Your task to perform on an android device: Go to Android settings Image 0: 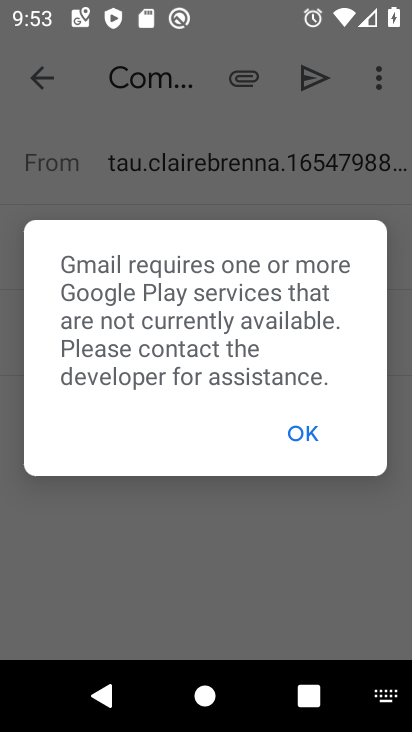
Step 0: press home button
Your task to perform on an android device: Go to Android settings Image 1: 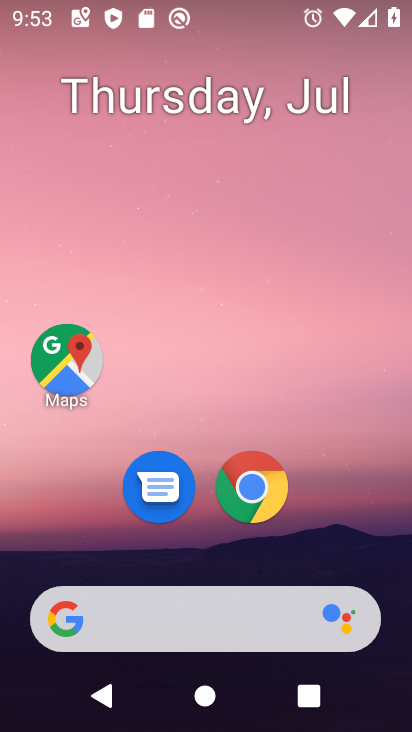
Step 1: drag from (254, 644) to (299, 250)
Your task to perform on an android device: Go to Android settings Image 2: 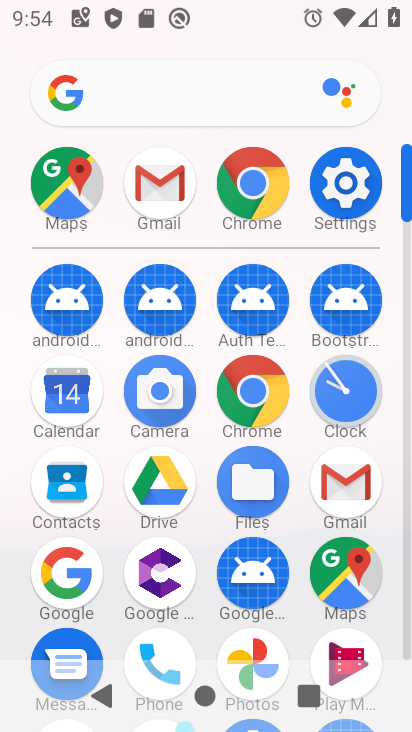
Step 2: click (330, 204)
Your task to perform on an android device: Go to Android settings Image 3: 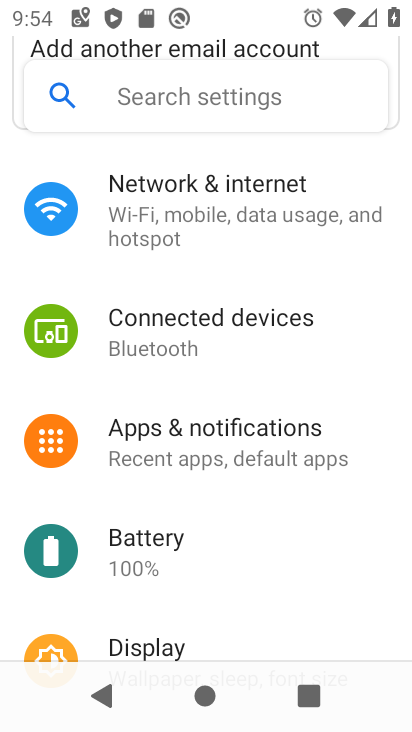
Step 3: drag from (197, 538) to (255, 94)
Your task to perform on an android device: Go to Android settings Image 4: 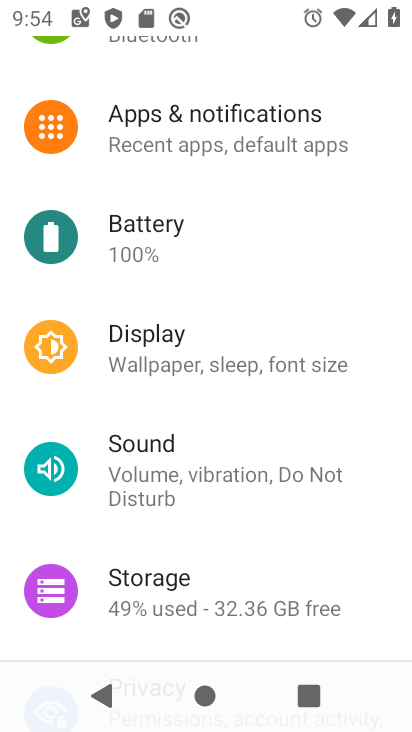
Step 4: drag from (115, 505) to (186, 121)
Your task to perform on an android device: Go to Android settings Image 5: 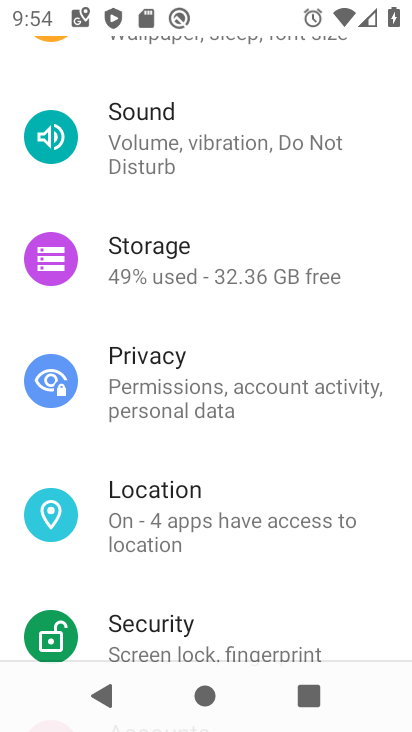
Step 5: drag from (192, 596) to (252, 222)
Your task to perform on an android device: Go to Android settings Image 6: 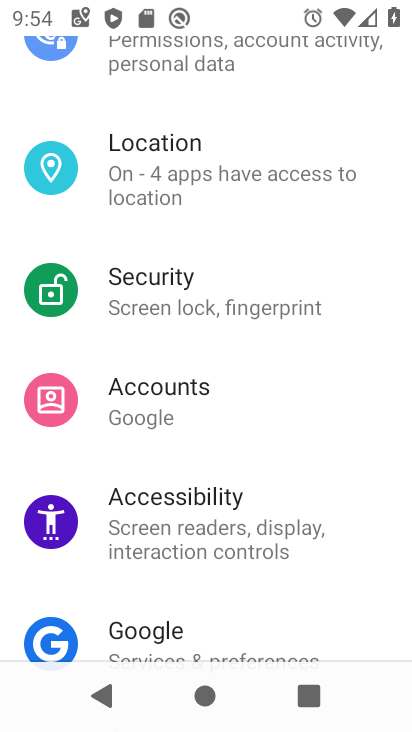
Step 6: drag from (227, 591) to (276, 198)
Your task to perform on an android device: Go to Android settings Image 7: 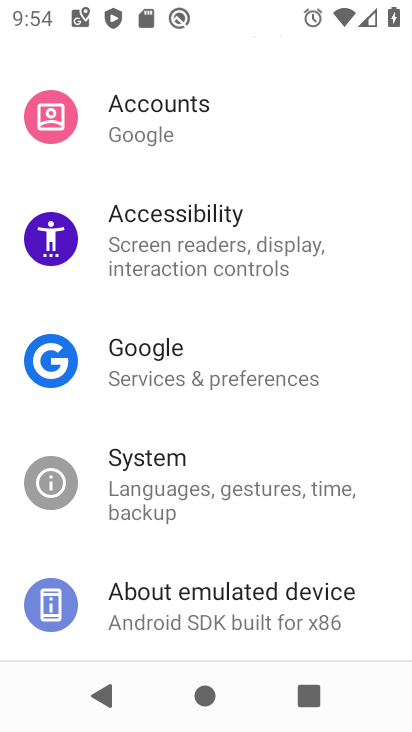
Step 7: drag from (225, 507) to (271, 205)
Your task to perform on an android device: Go to Android settings Image 8: 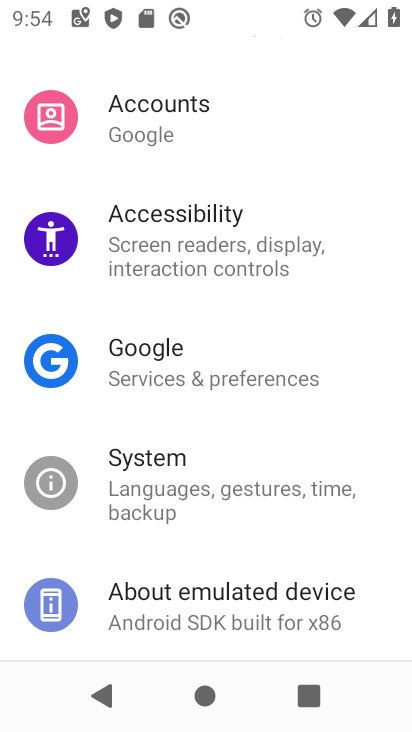
Step 8: click (239, 609)
Your task to perform on an android device: Go to Android settings Image 9: 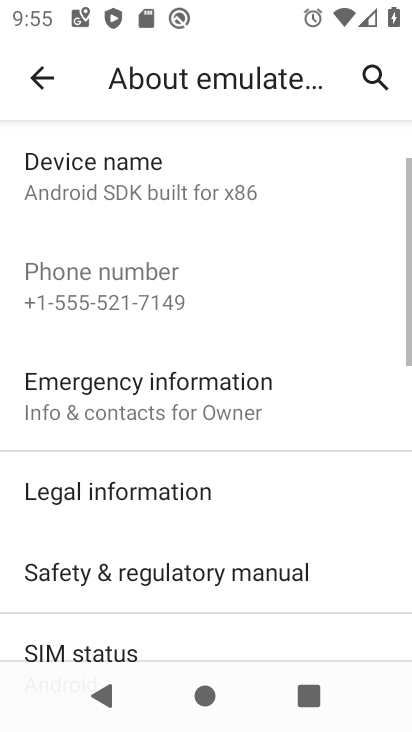
Step 9: drag from (161, 569) to (225, 314)
Your task to perform on an android device: Go to Android settings Image 10: 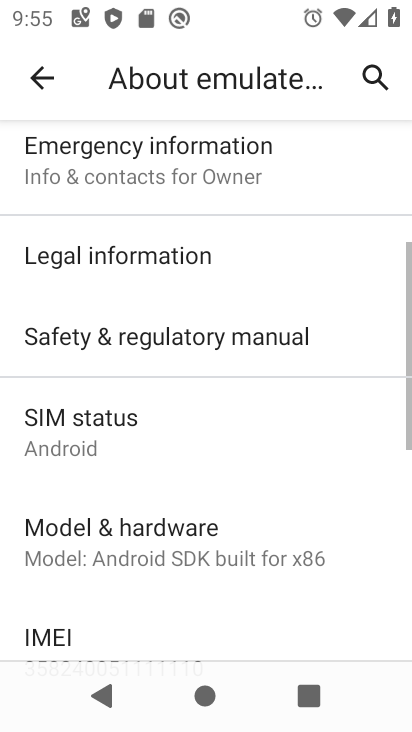
Step 10: drag from (189, 585) to (263, 208)
Your task to perform on an android device: Go to Android settings Image 11: 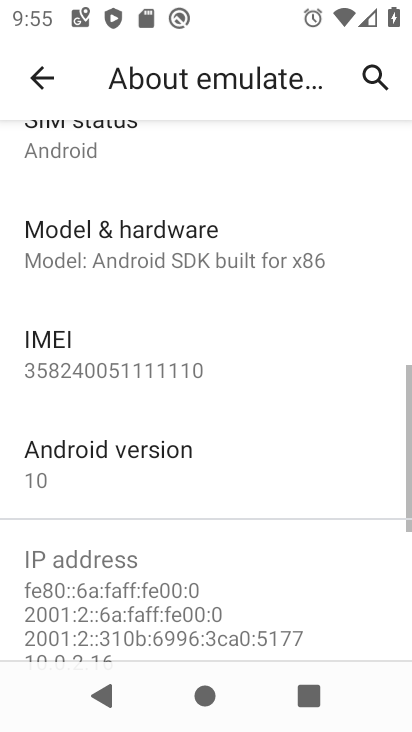
Step 11: click (158, 476)
Your task to perform on an android device: Go to Android settings Image 12: 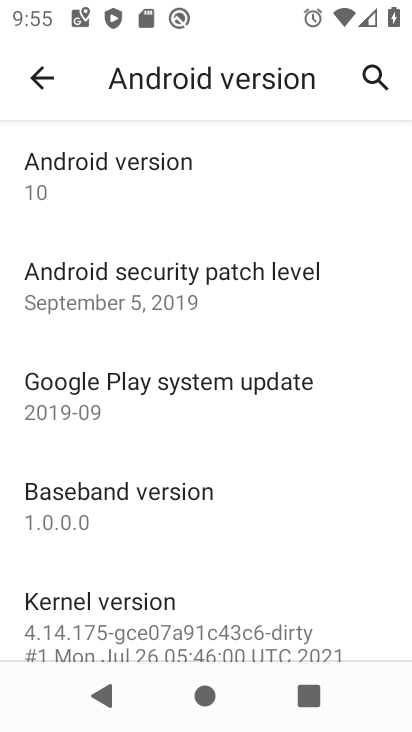
Step 12: click (185, 180)
Your task to perform on an android device: Go to Android settings Image 13: 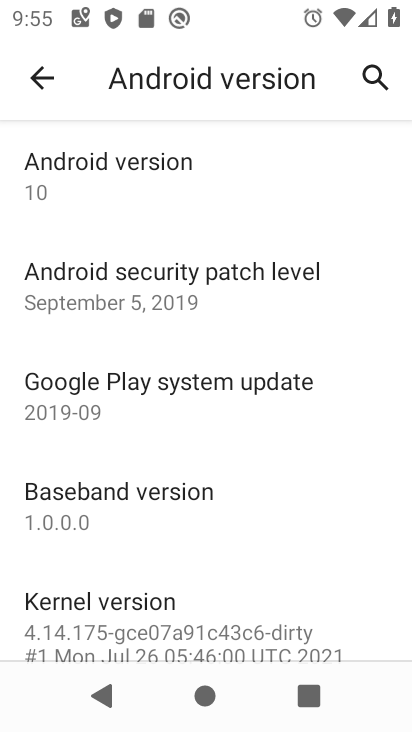
Step 13: task complete